Your task to perform on an android device: turn off translation in the chrome app Image 0: 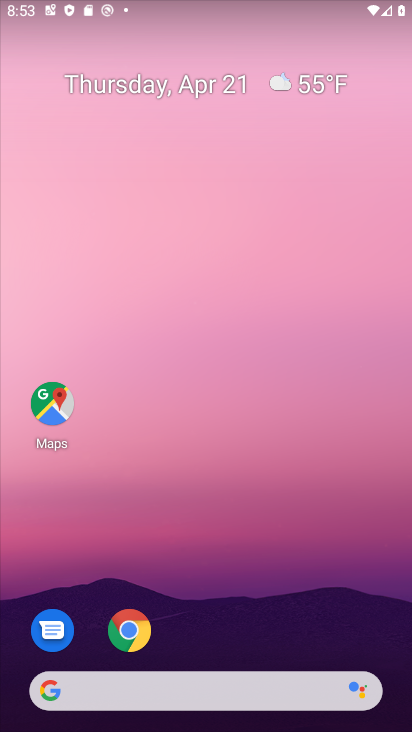
Step 0: click (136, 649)
Your task to perform on an android device: turn off translation in the chrome app Image 1: 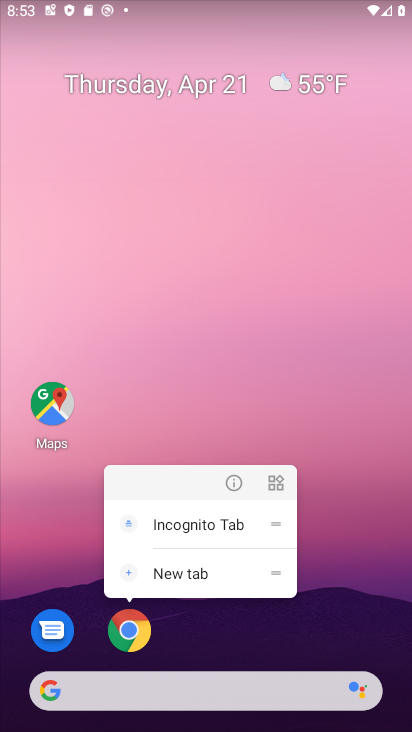
Step 1: click (128, 635)
Your task to perform on an android device: turn off translation in the chrome app Image 2: 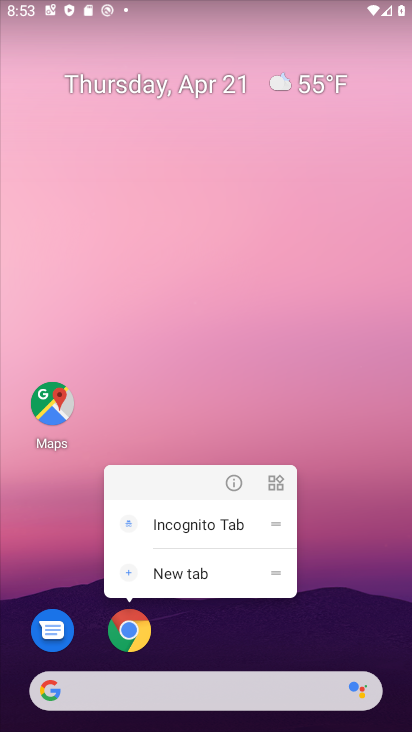
Step 2: click (135, 631)
Your task to perform on an android device: turn off translation in the chrome app Image 3: 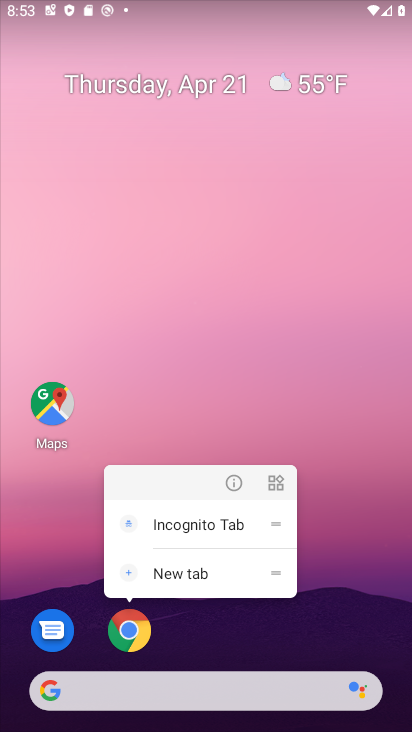
Step 3: click (141, 625)
Your task to perform on an android device: turn off translation in the chrome app Image 4: 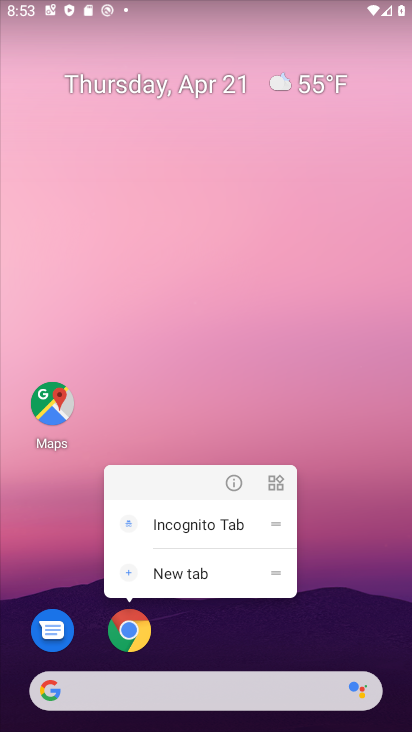
Step 4: click (139, 625)
Your task to perform on an android device: turn off translation in the chrome app Image 5: 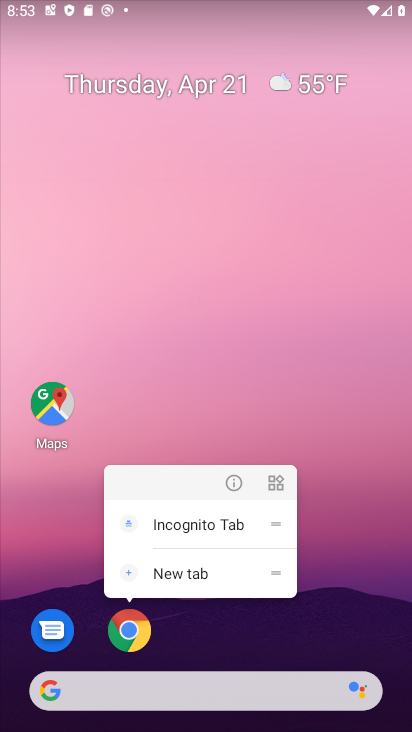
Step 5: drag from (271, 670) to (346, 65)
Your task to perform on an android device: turn off translation in the chrome app Image 6: 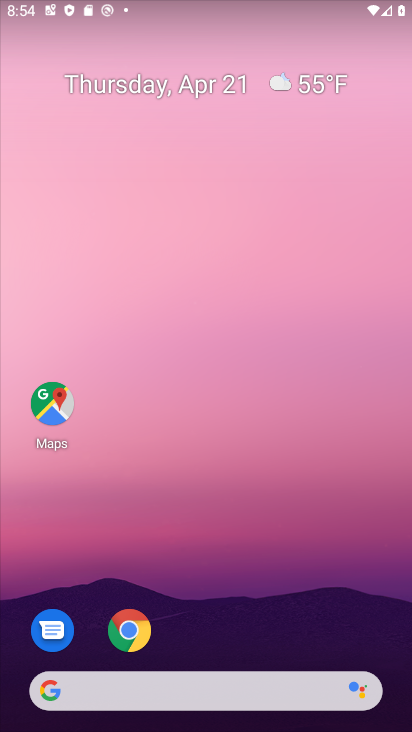
Step 6: drag from (218, 665) to (381, 79)
Your task to perform on an android device: turn off translation in the chrome app Image 7: 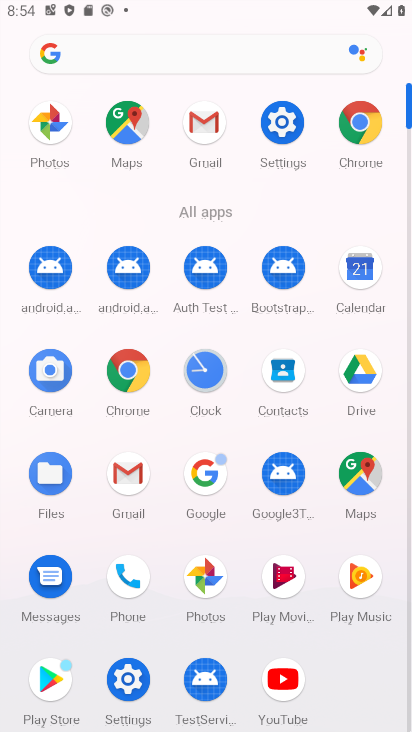
Step 7: click (127, 368)
Your task to perform on an android device: turn off translation in the chrome app Image 8: 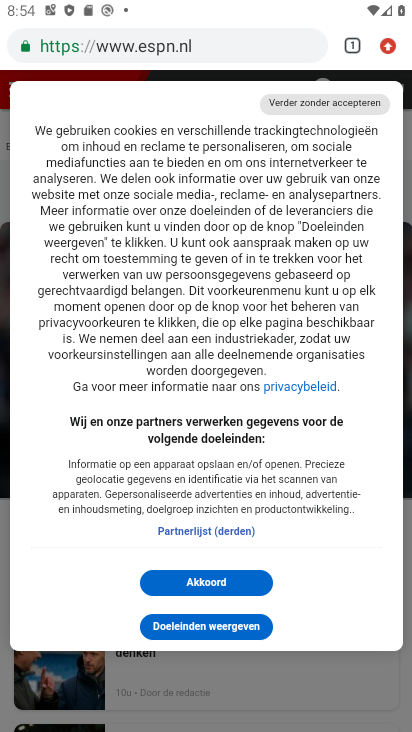
Step 8: drag from (386, 46) to (300, 600)
Your task to perform on an android device: turn off translation in the chrome app Image 9: 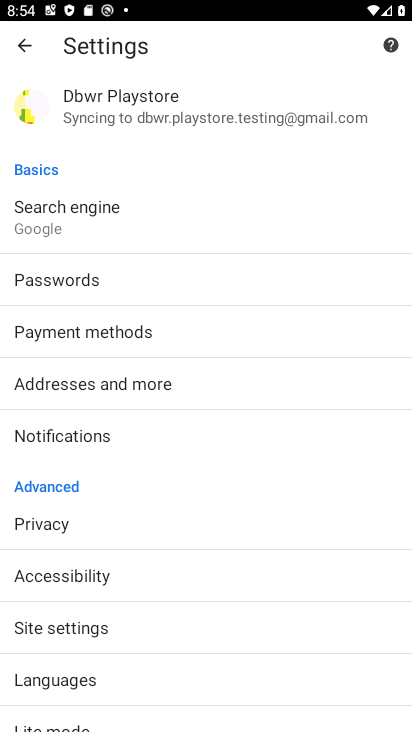
Step 9: drag from (137, 659) to (221, 372)
Your task to perform on an android device: turn off translation in the chrome app Image 10: 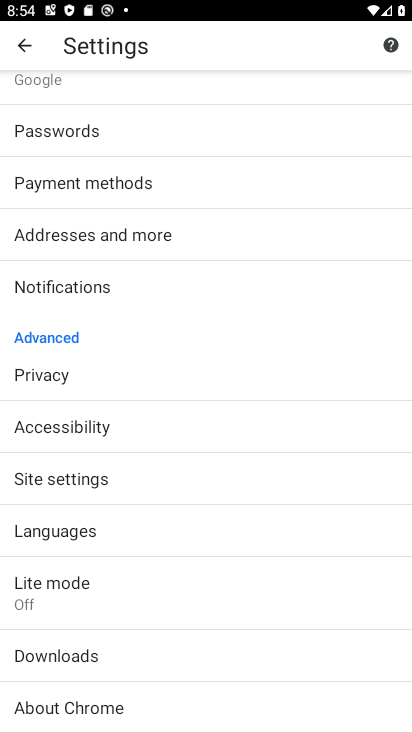
Step 10: click (100, 538)
Your task to perform on an android device: turn off translation in the chrome app Image 11: 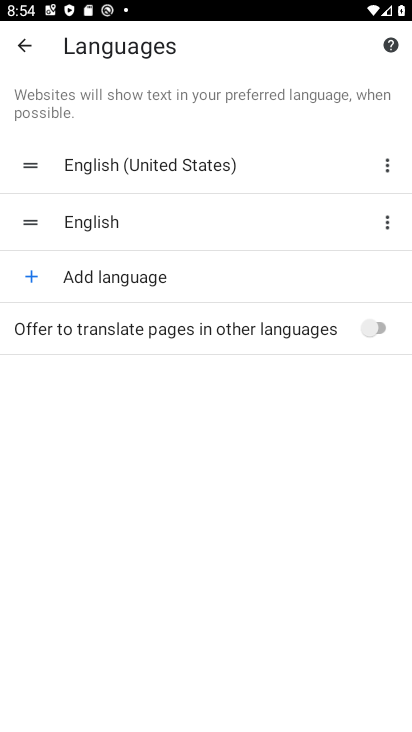
Step 11: task complete